Your task to perform on an android device: turn on showing notifications on the lock screen Image 0: 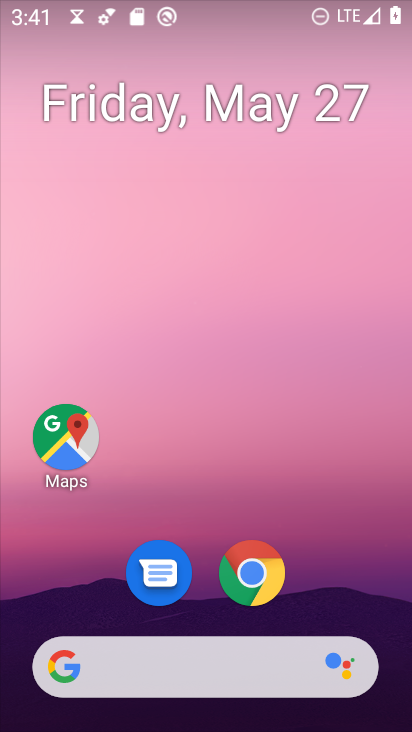
Step 0: drag from (328, 579) to (321, 10)
Your task to perform on an android device: turn on showing notifications on the lock screen Image 1: 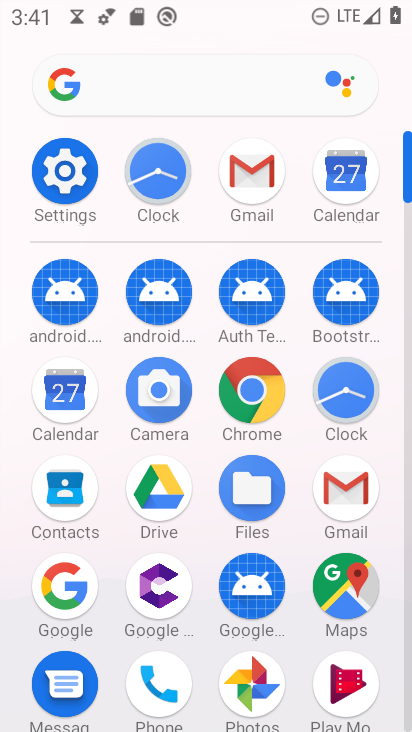
Step 1: click (76, 170)
Your task to perform on an android device: turn on showing notifications on the lock screen Image 2: 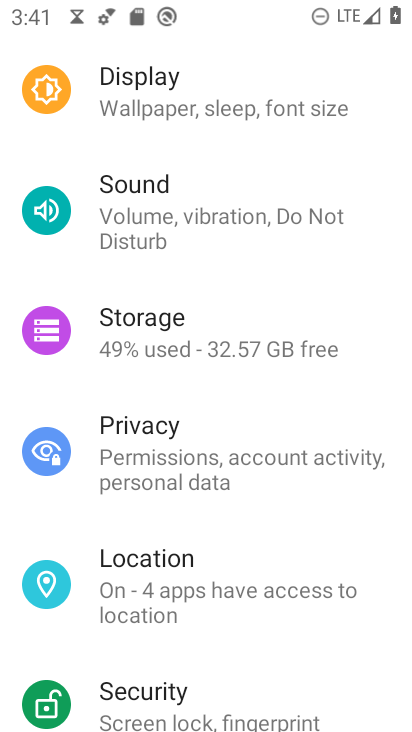
Step 2: drag from (219, 341) to (220, 731)
Your task to perform on an android device: turn on showing notifications on the lock screen Image 3: 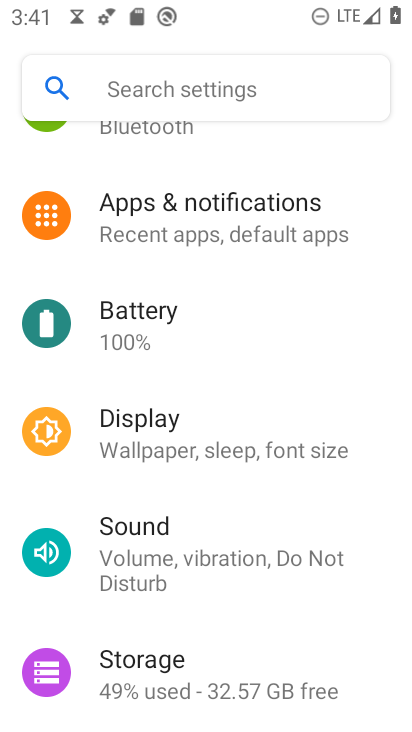
Step 3: click (208, 226)
Your task to perform on an android device: turn on showing notifications on the lock screen Image 4: 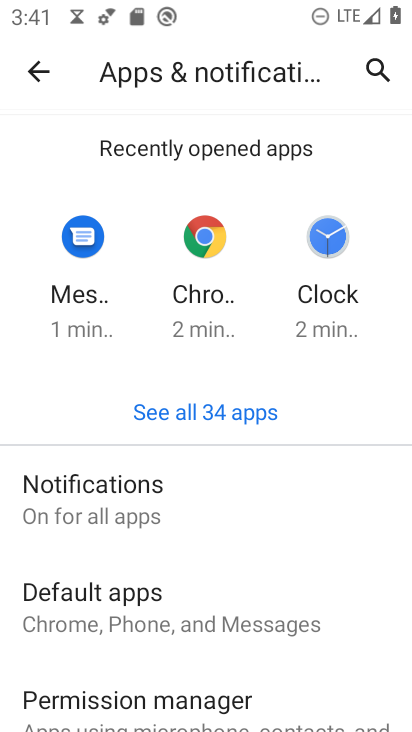
Step 4: click (122, 501)
Your task to perform on an android device: turn on showing notifications on the lock screen Image 5: 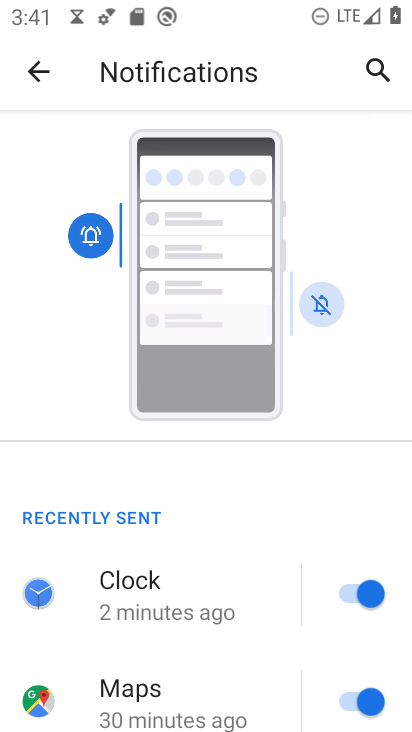
Step 5: drag from (148, 666) to (199, 309)
Your task to perform on an android device: turn on showing notifications on the lock screen Image 6: 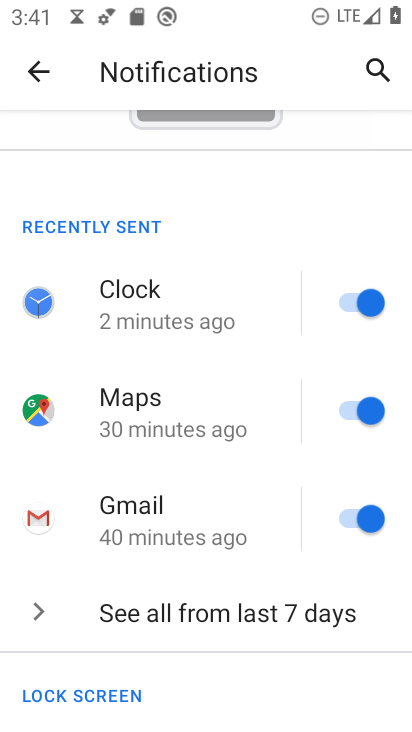
Step 6: drag from (189, 666) to (191, 247)
Your task to perform on an android device: turn on showing notifications on the lock screen Image 7: 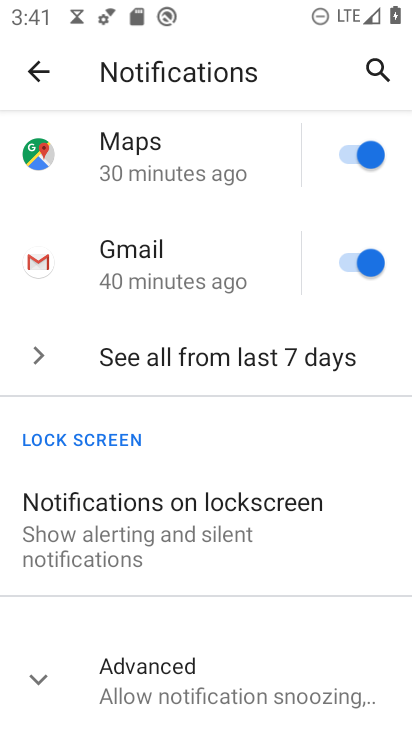
Step 7: click (165, 532)
Your task to perform on an android device: turn on showing notifications on the lock screen Image 8: 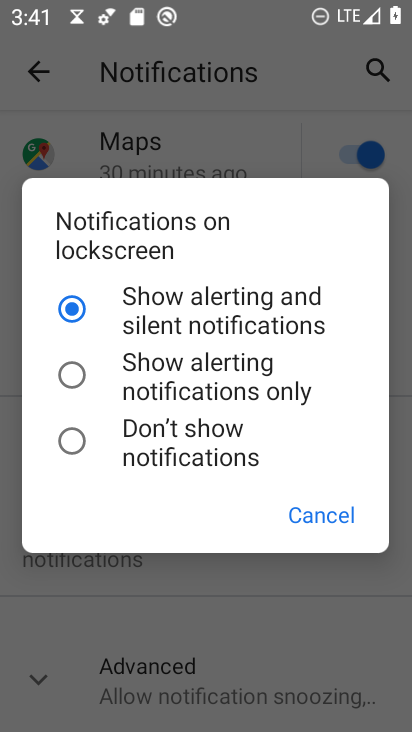
Step 8: click (219, 321)
Your task to perform on an android device: turn on showing notifications on the lock screen Image 9: 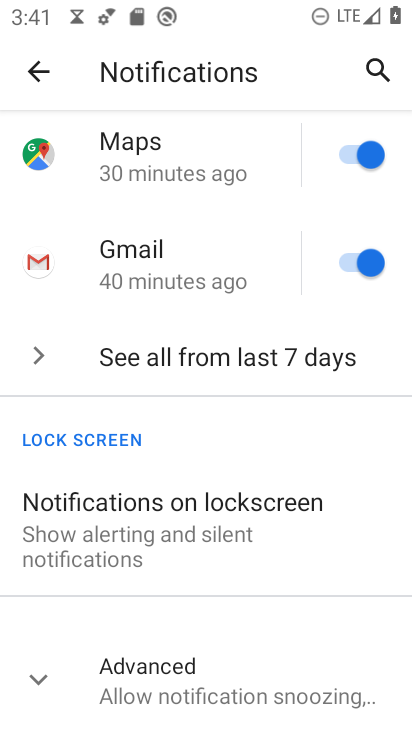
Step 9: task complete